Your task to perform on an android device: add a label to a message in the gmail app Image 0: 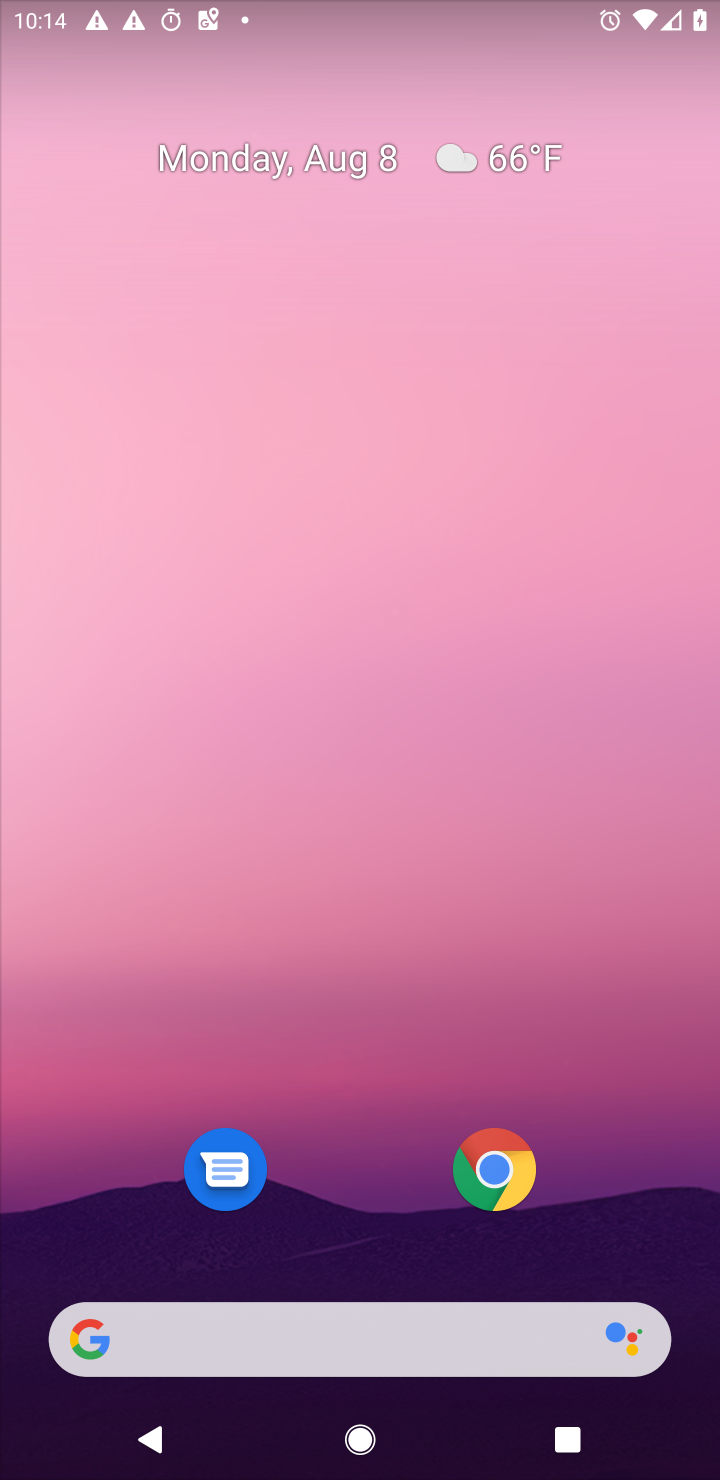
Step 0: drag from (378, 1254) to (535, 0)
Your task to perform on an android device: add a label to a message in the gmail app Image 1: 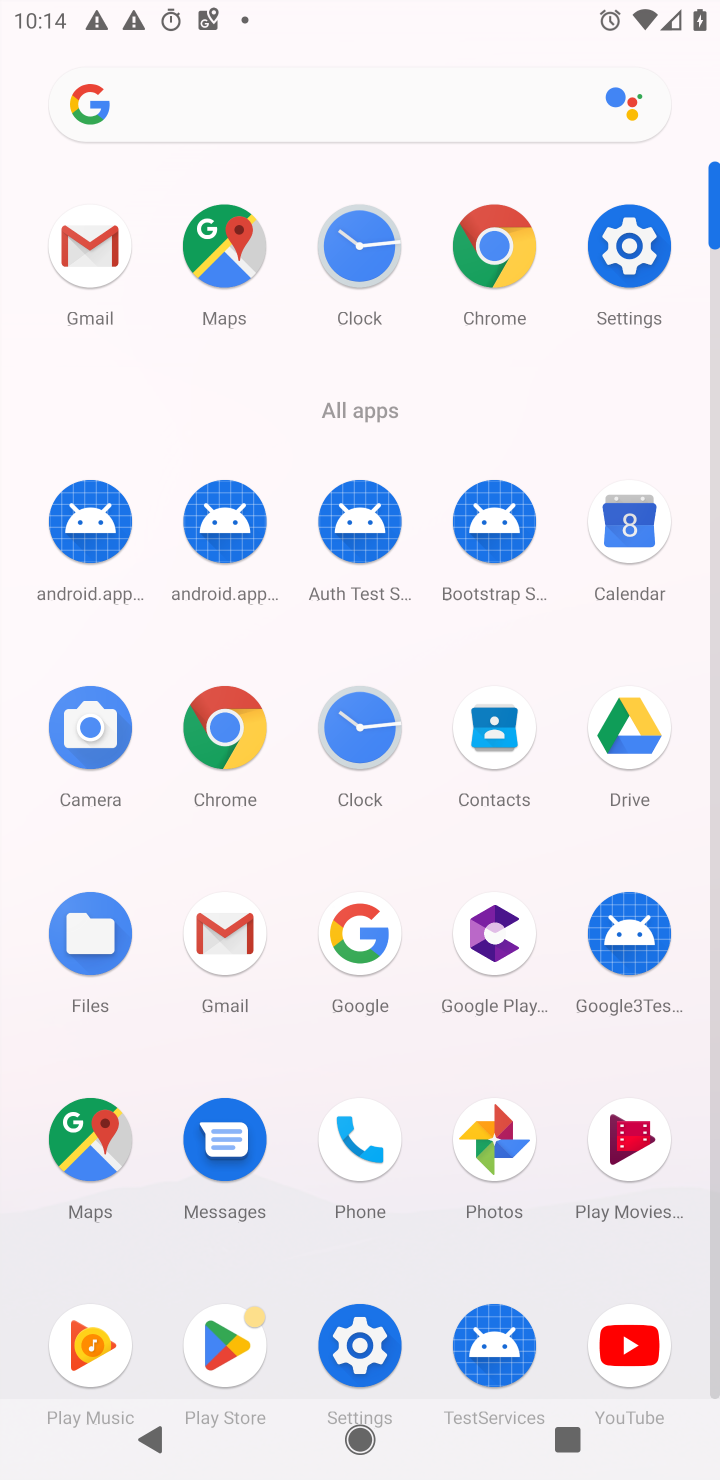
Step 1: click (104, 223)
Your task to perform on an android device: add a label to a message in the gmail app Image 2: 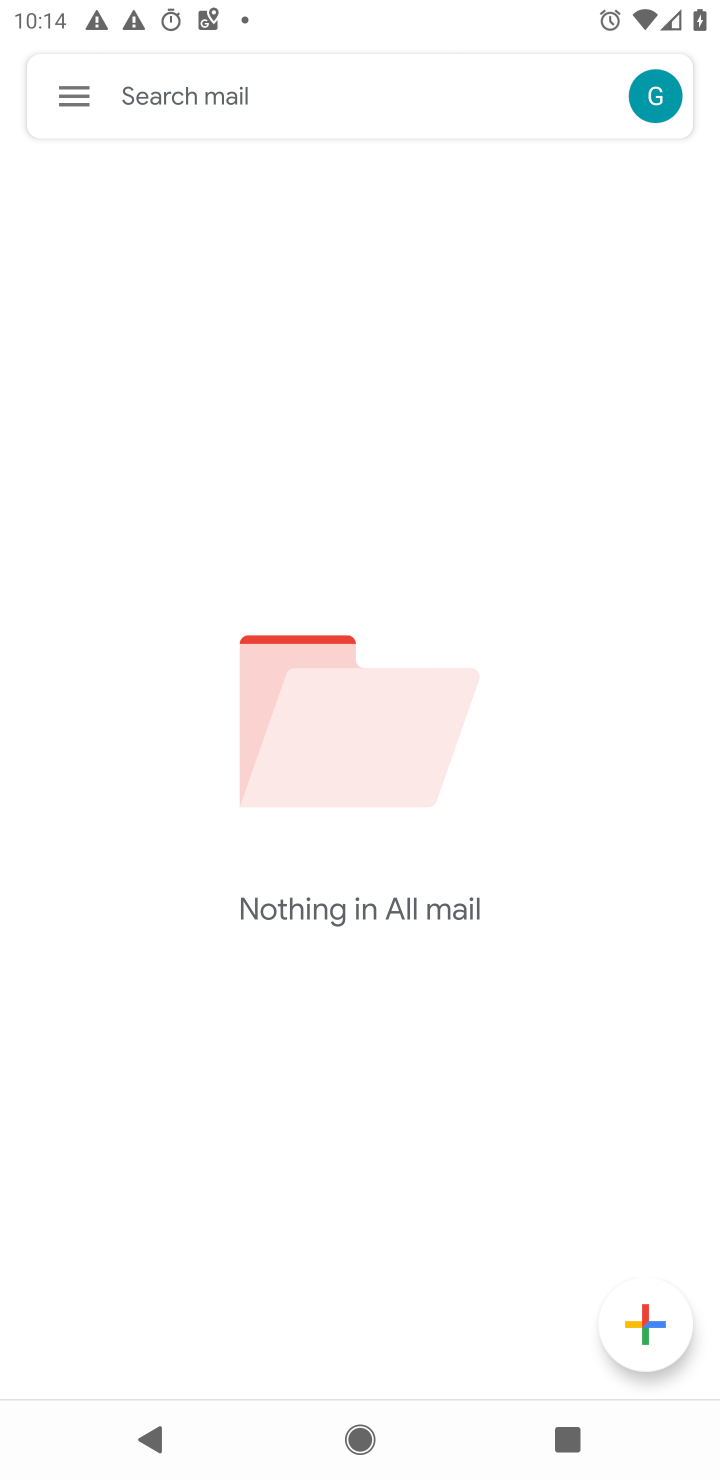
Step 2: task complete